Your task to perform on an android device: empty trash in the gmail app Image 0: 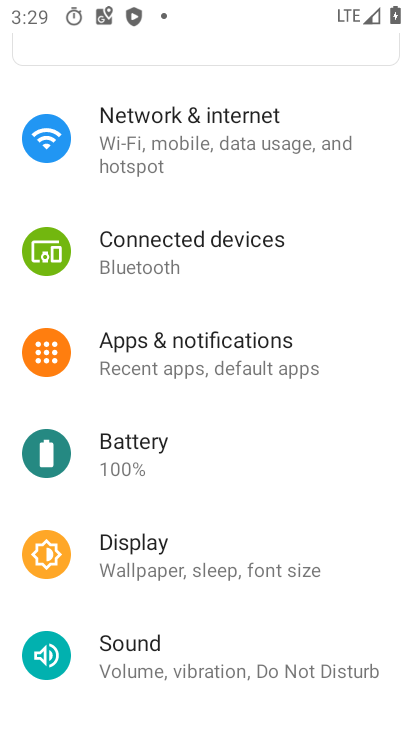
Step 0: press home button
Your task to perform on an android device: empty trash in the gmail app Image 1: 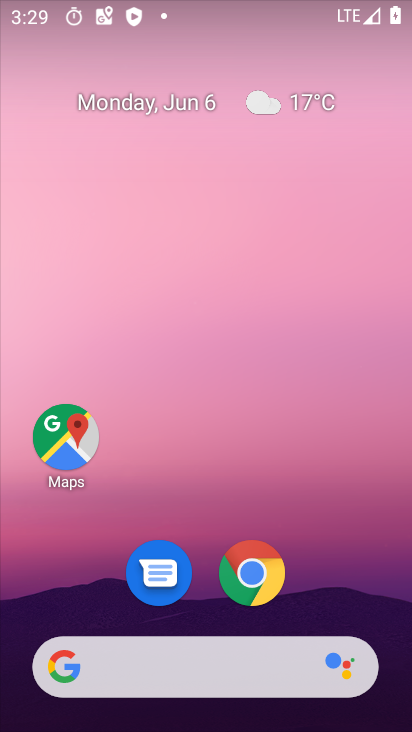
Step 1: drag from (380, 605) to (342, 173)
Your task to perform on an android device: empty trash in the gmail app Image 2: 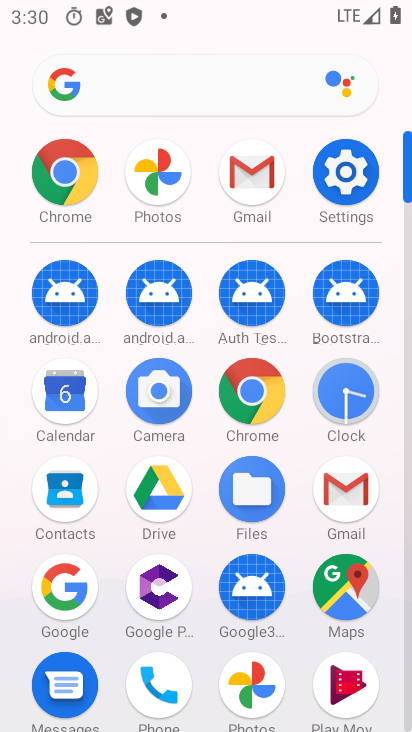
Step 2: click (349, 481)
Your task to perform on an android device: empty trash in the gmail app Image 3: 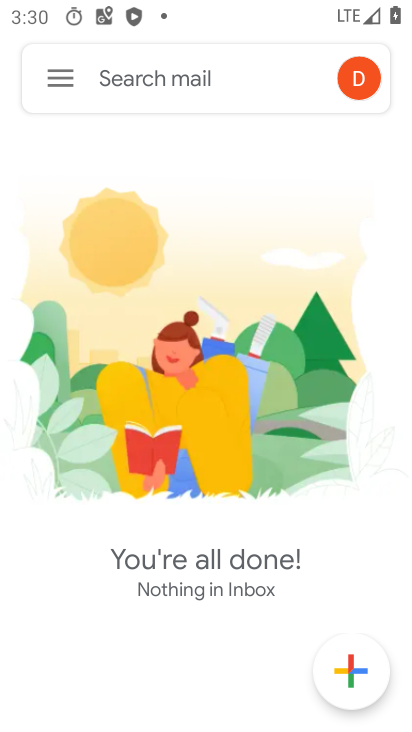
Step 3: click (69, 87)
Your task to perform on an android device: empty trash in the gmail app Image 4: 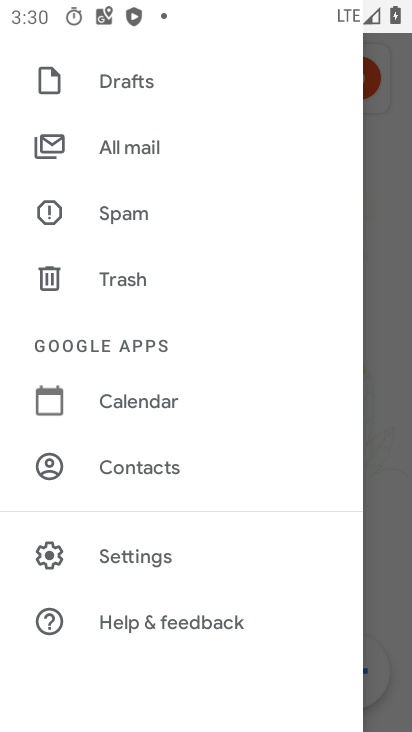
Step 4: drag from (272, 250) to (277, 460)
Your task to perform on an android device: empty trash in the gmail app Image 5: 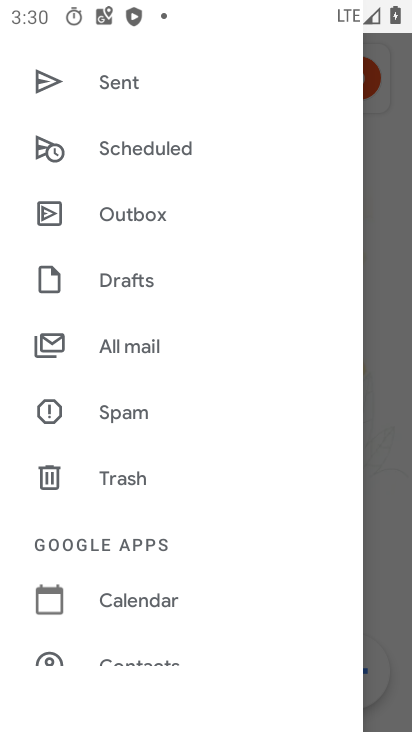
Step 5: click (135, 489)
Your task to perform on an android device: empty trash in the gmail app Image 6: 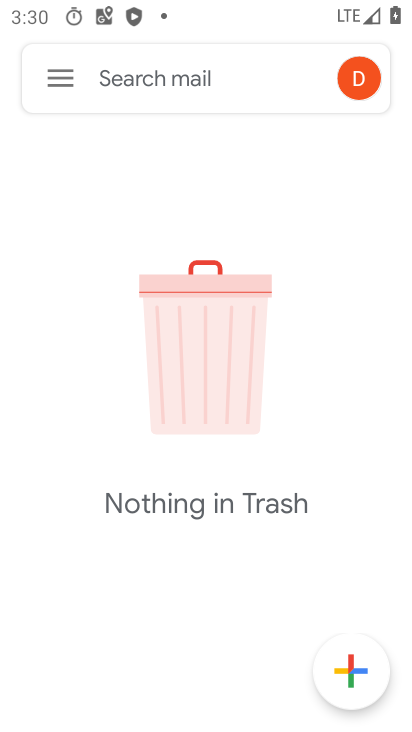
Step 6: task complete